Your task to perform on an android device: Open the calendar and show me this week's events? Image 0: 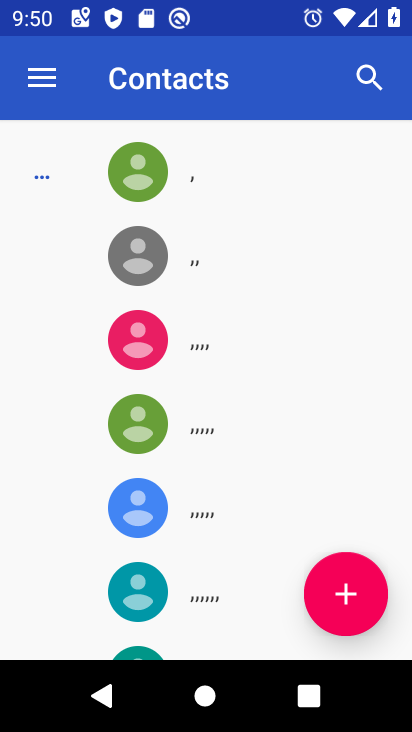
Step 0: press home button
Your task to perform on an android device: Open the calendar and show me this week's events? Image 1: 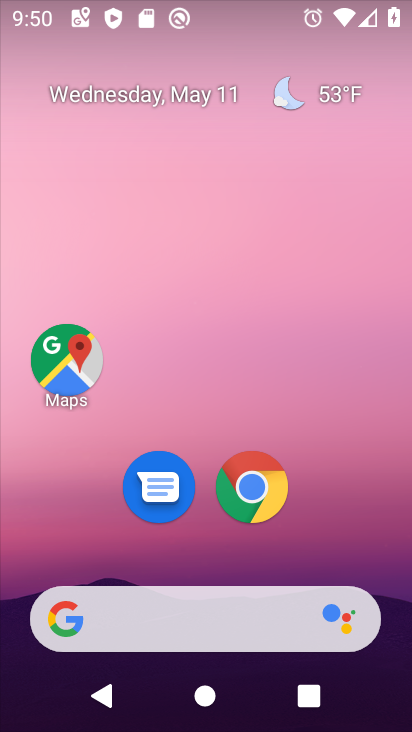
Step 1: drag from (195, 563) to (201, 133)
Your task to perform on an android device: Open the calendar and show me this week's events? Image 2: 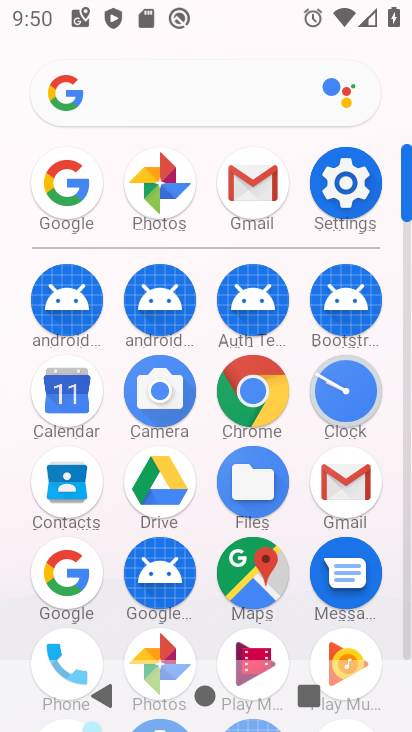
Step 2: click (36, 404)
Your task to perform on an android device: Open the calendar and show me this week's events? Image 3: 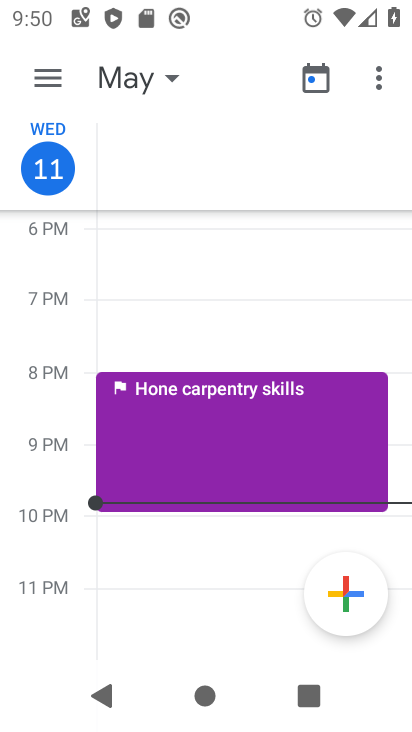
Step 3: click (164, 73)
Your task to perform on an android device: Open the calendar and show me this week's events? Image 4: 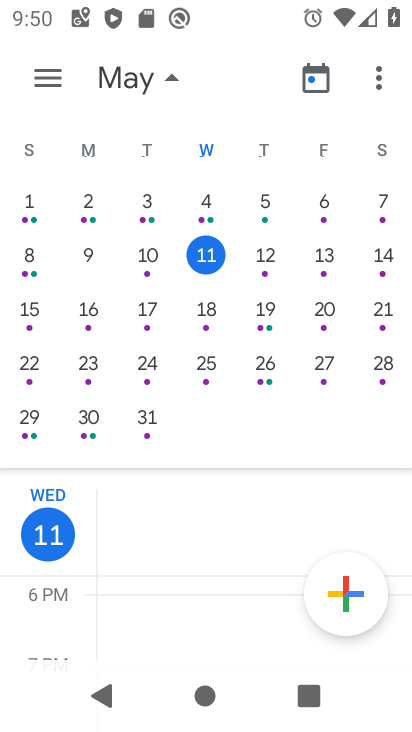
Step 4: click (383, 263)
Your task to perform on an android device: Open the calendar and show me this week's events? Image 5: 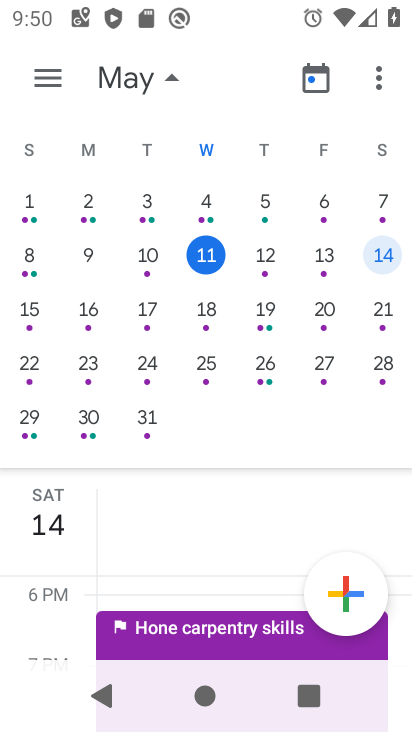
Step 5: task complete